Your task to perform on an android device: Open Google Maps Image 0: 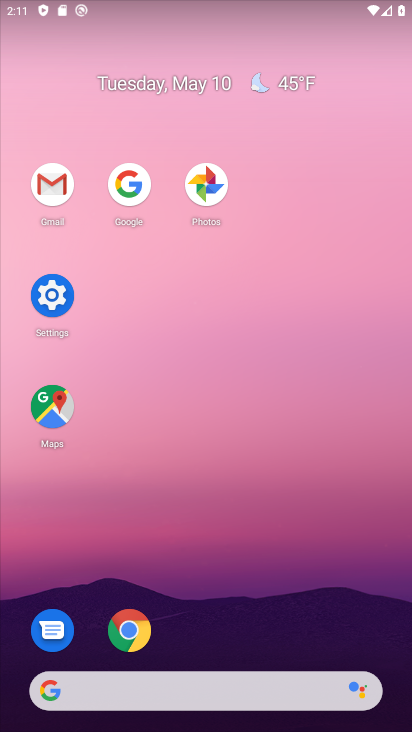
Step 0: click (46, 409)
Your task to perform on an android device: Open Google Maps Image 1: 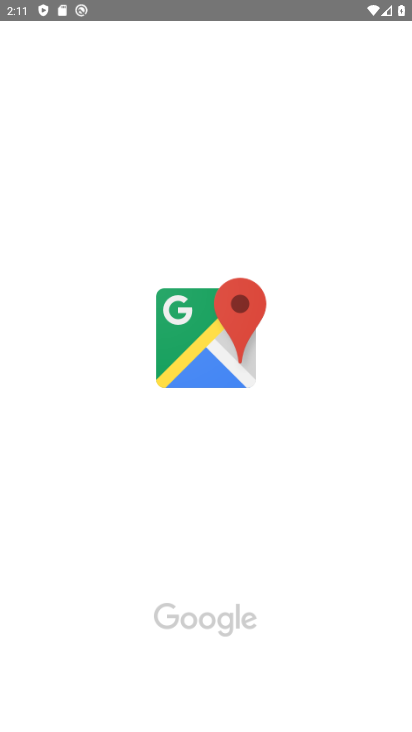
Step 1: task complete